Your task to perform on an android device: change keyboard looks Image 0: 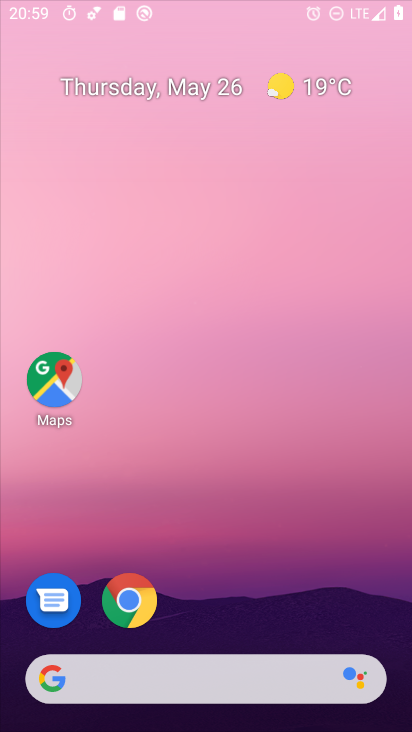
Step 0: press home button
Your task to perform on an android device: change keyboard looks Image 1: 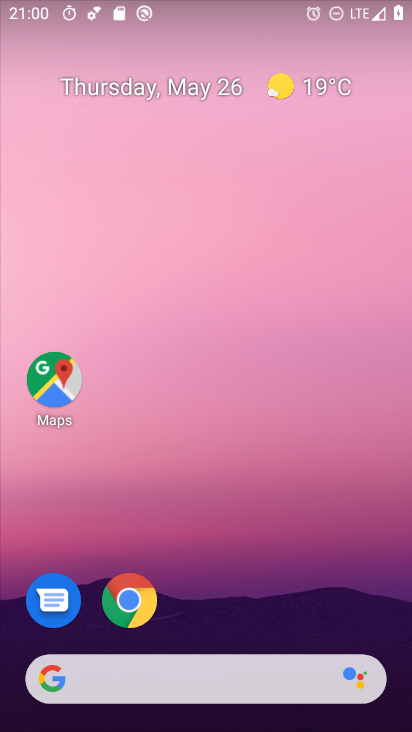
Step 1: drag from (245, 629) to (288, 141)
Your task to perform on an android device: change keyboard looks Image 2: 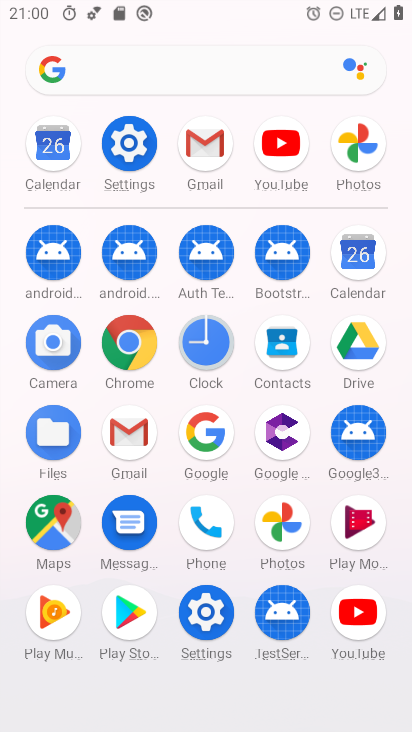
Step 2: click (135, 152)
Your task to perform on an android device: change keyboard looks Image 3: 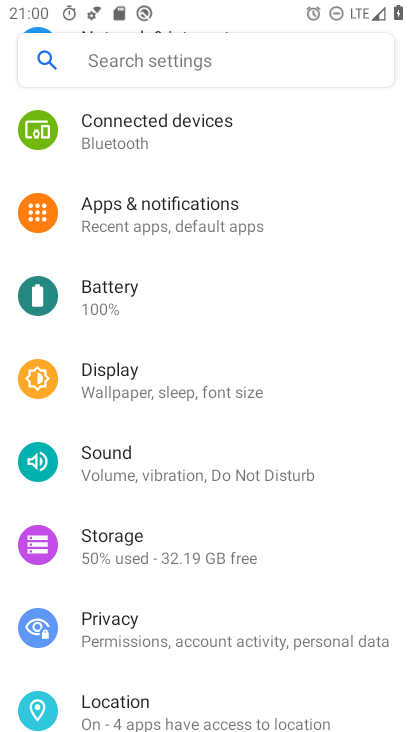
Step 3: drag from (279, 642) to (297, 193)
Your task to perform on an android device: change keyboard looks Image 4: 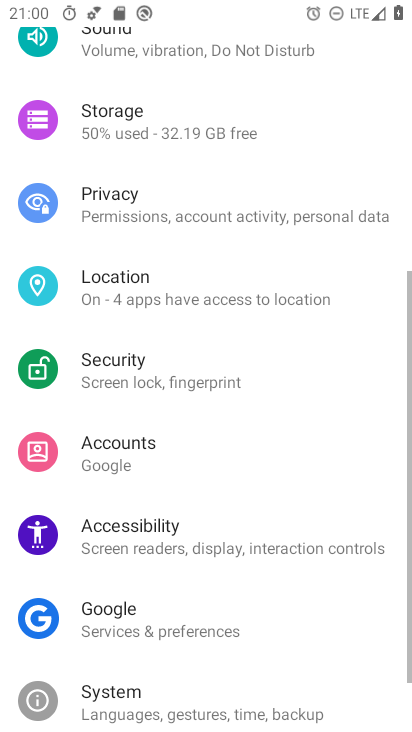
Step 4: drag from (320, 509) to (285, 163)
Your task to perform on an android device: change keyboard looks Image 5: 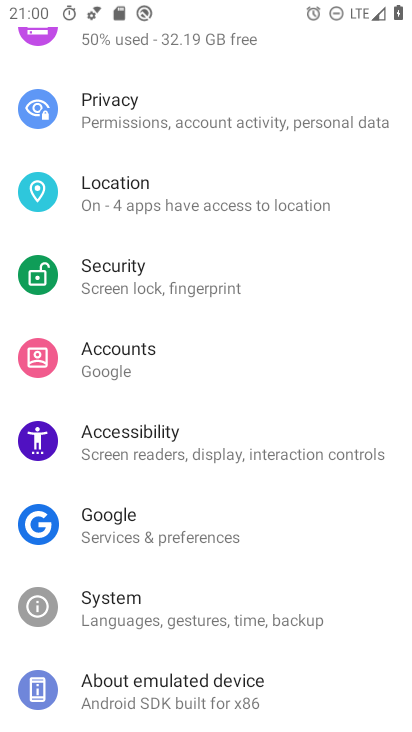
Step 5: click (108, 613)
Your task to perform on an android device: change keyboard looks Image 6: 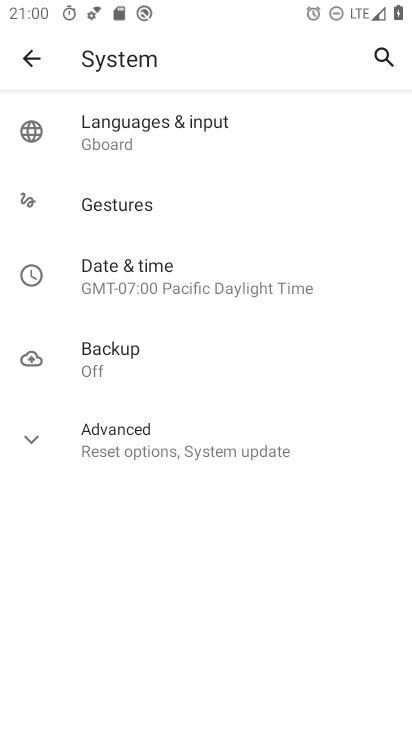
Step 6: click (140, 134)
Your task to perform on an android device: change keyboard looks Image 7: 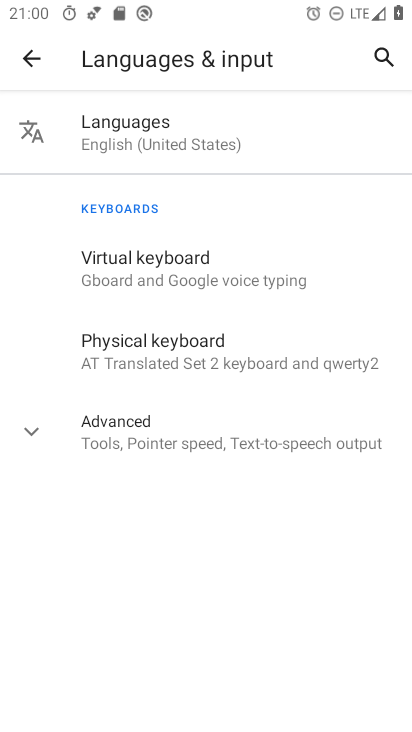
Step 7: click (137, 268)
Your task to perform on an android device: change keyboard looks Image 8: 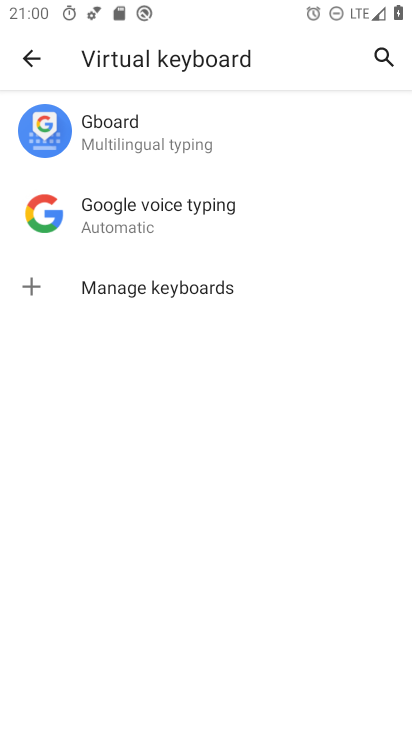
Step 8: click (123, 135)
Your task to perform on an android device: change keyboard looks Image 9: 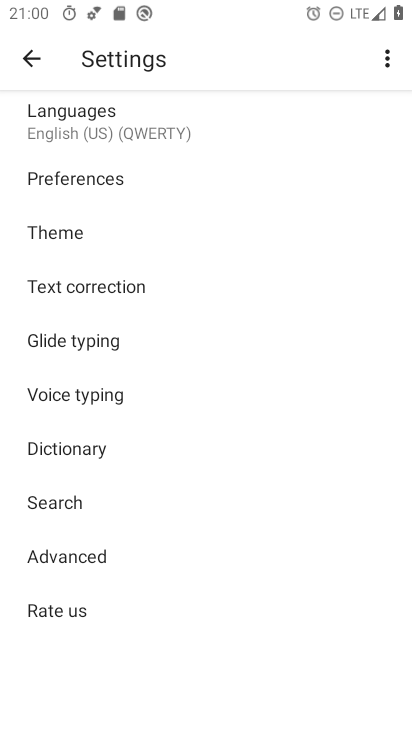
Step 9: click (69, 239)
Your task to perform on an android device: change keyboard looks Image 10: 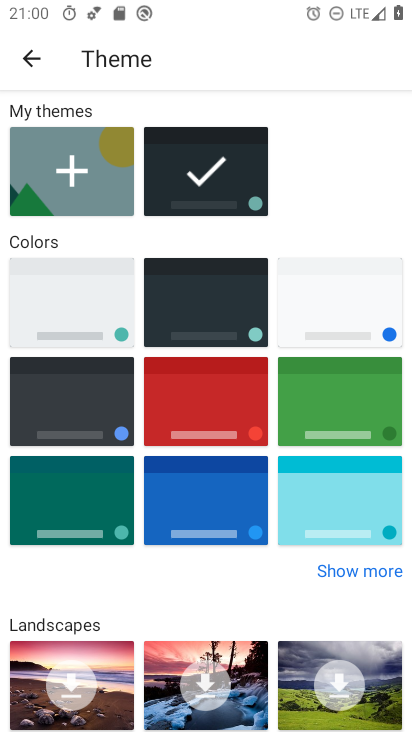
Step 10: click (165, 400)
Your task to perform on an android device: change keyboard looks Image 11: 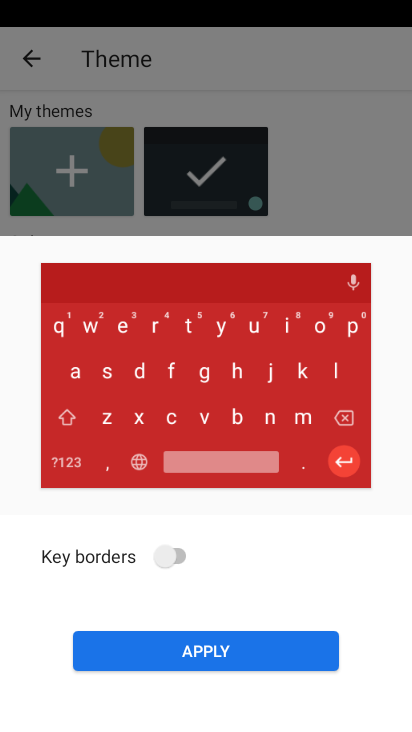
Step 11: click (241, 655)
Your task to perform on an android device: change keyboard looks Image 12: 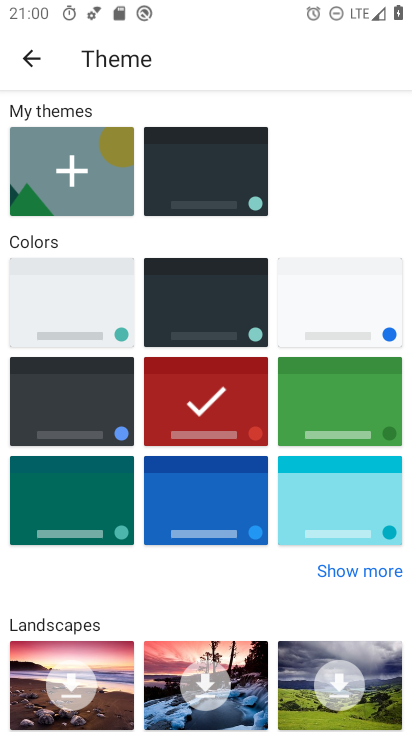
Step 12: task complete